Your task to perform on an android device: turn vacation reply on in the gmail app Image 0: 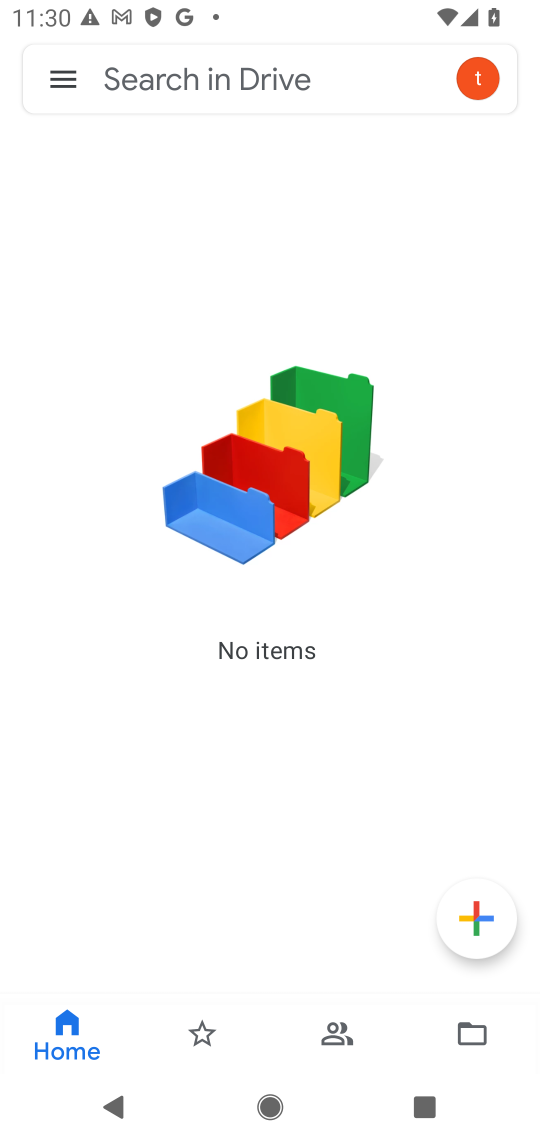
Step 0: press home button
Your task to perform on an android device: turn vacation reply on in the gmail app Image 1: 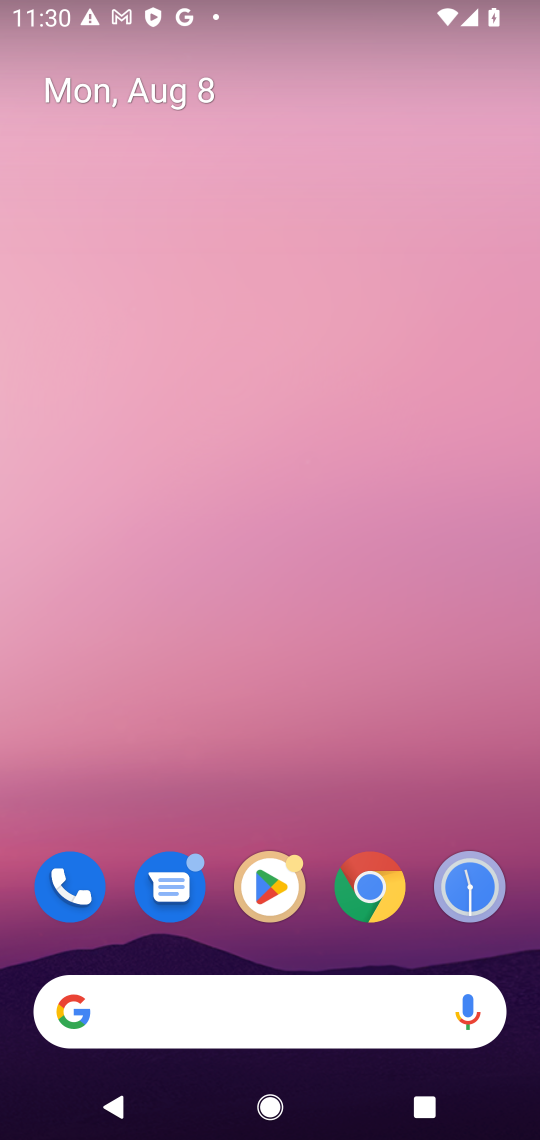
Step 1: drag from (334, 802) to (266, 17)
Your task to perform on an android device: turn vacation reply on in the gmail app Image 2: 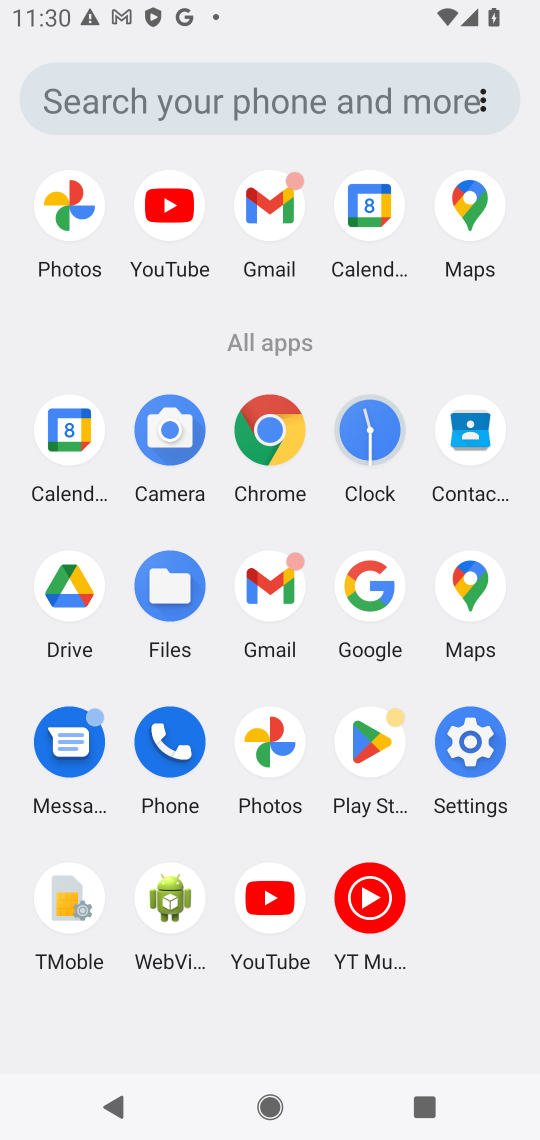
Step 2: click (271, 192)
Your task to perform on an android device: turn vacation reply on in the gmail app Image 3: 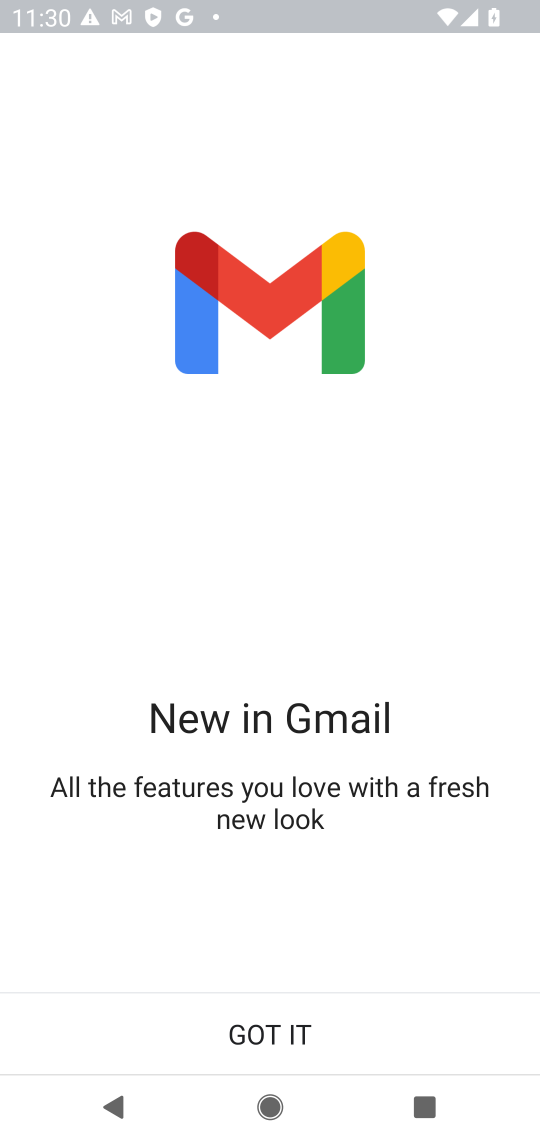
Step 3: click (290, 1026)
Your task to perform on an android device: turn vacation reply on in the gmail app Image 4: 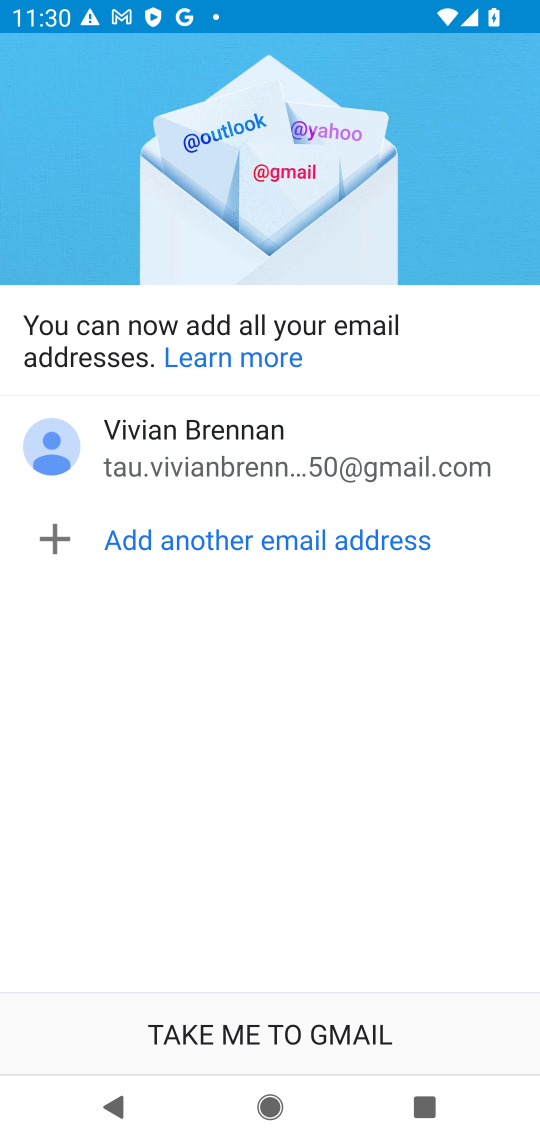
Step 4: click (290, 1026)
Your task to perform on an android device: turn vacation reply on in the gmail app Image 5: 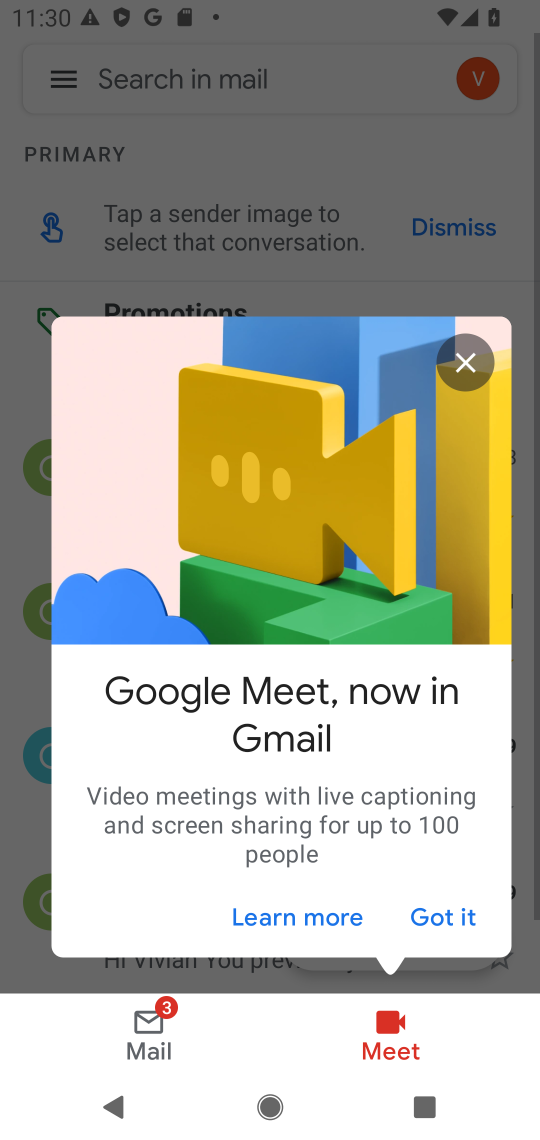
Step 5: click (429, 921)
Your task to perform on an android device: turn vacation reply on in the gmail app Image 6: 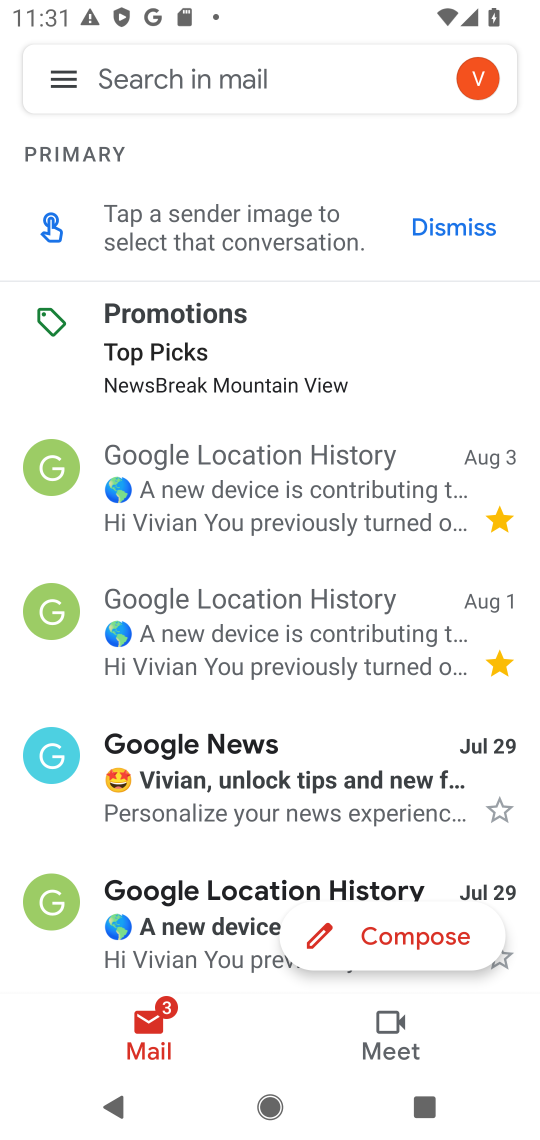
Step 6: click (58, 85)
Your task to perform on an android device: turn vacation reply on in the gmail app Image 7: 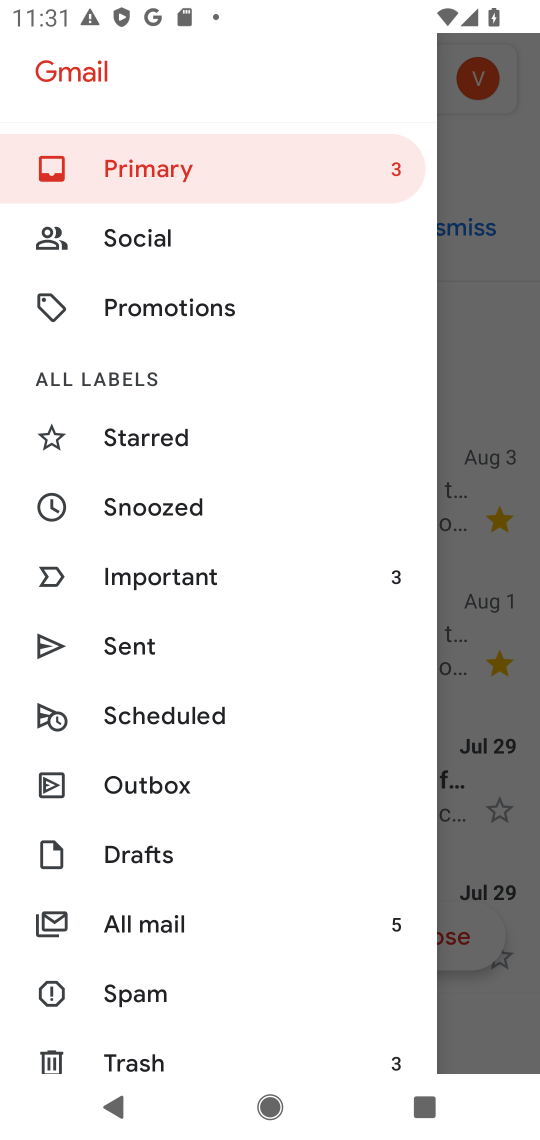
Step 7: drag from (263, 936) to (240, 550)
Your task to perform on an android device: turn vacation reply on in the gmail app Image 8: 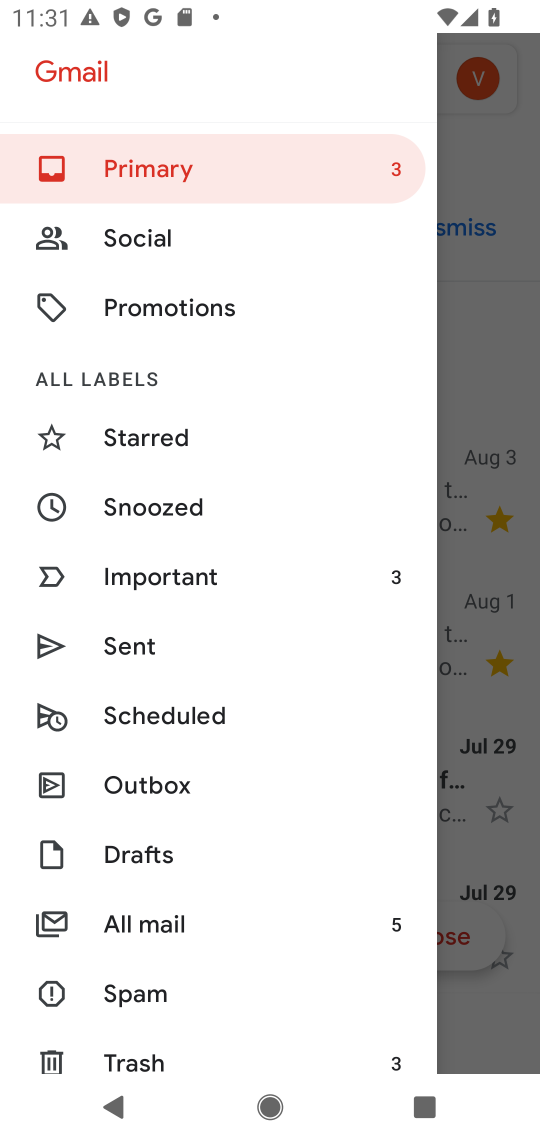
Step 8: drag from (254, 996) to (238, 492)
Your task to perform on an android device: turn vacation reply on in the gmail app Image 9: 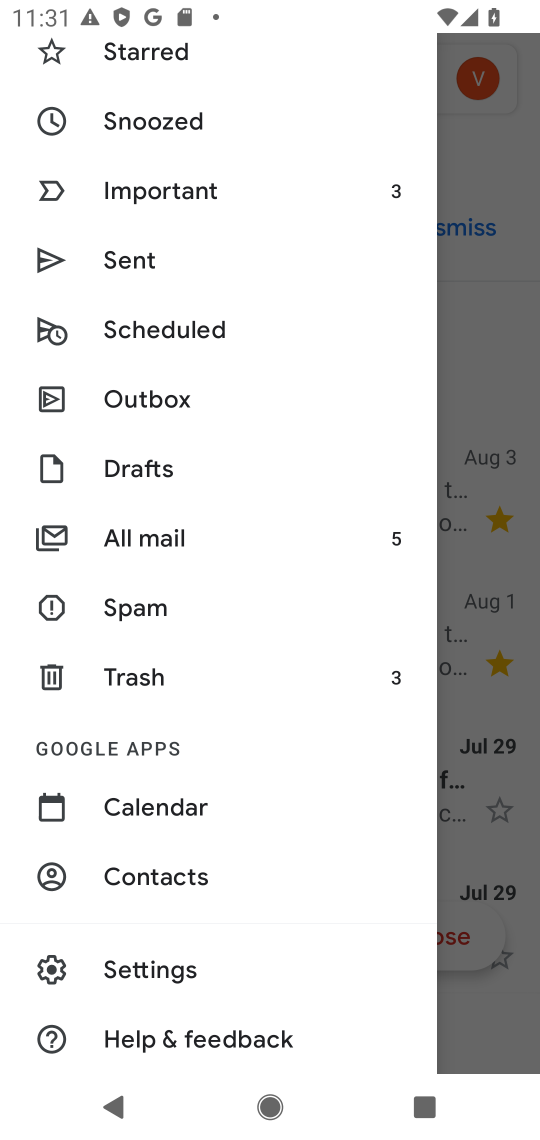
Step 9: click (181, 970)
Your task to perform on an android device: turn vacation reply on in the gmail app Image 10: 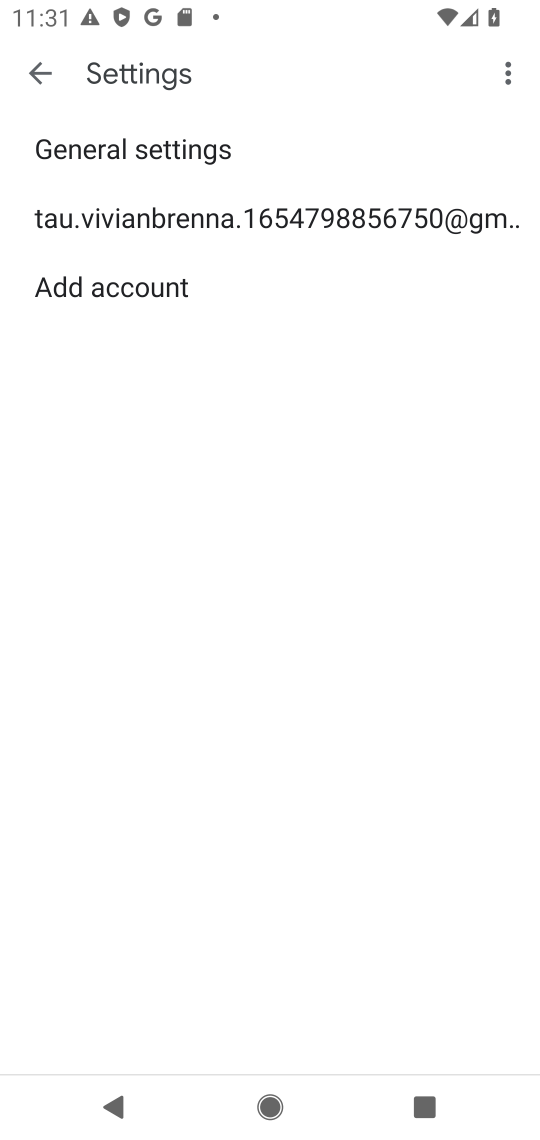
Step 10: click (168, 228)
Your task to perform on an android device: turn vacation reply on in the gmail app Image 11: 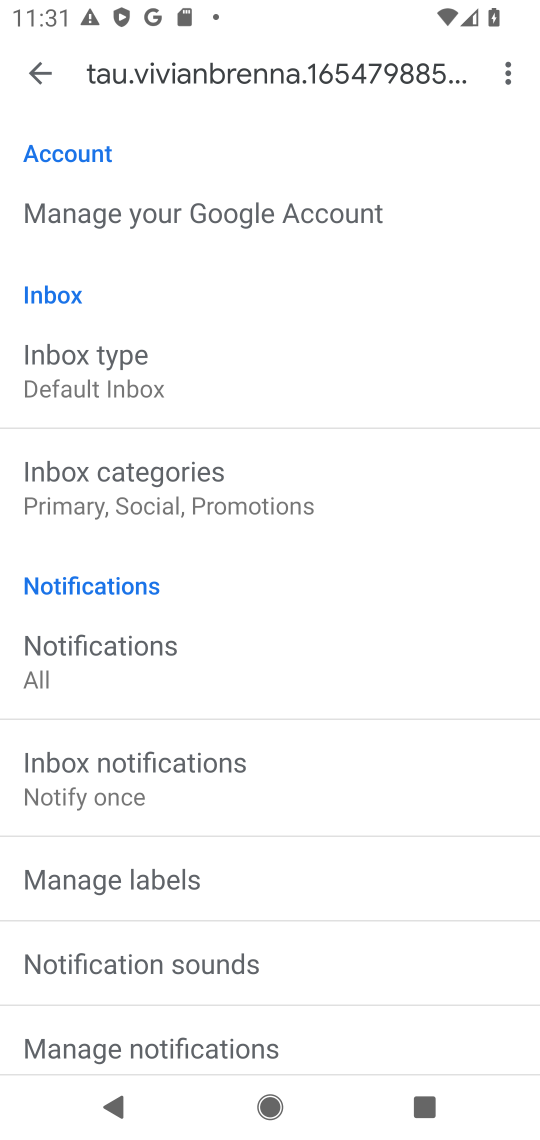
Step 11: drag from (243, 925) to (250, 307)
Your task to perform on an android device: turn vacation reply on in the gmail app Image 12: 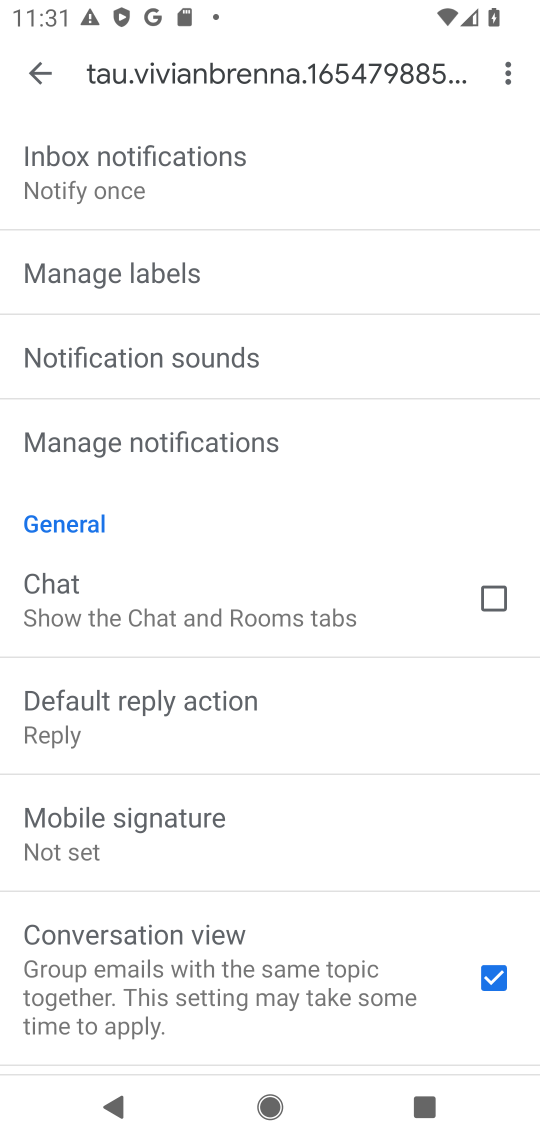
Step 12: drag from (306, 855) to (245, 260)
Your task to perform on an android device: turn vacation reply on in the gmail app Image 13: 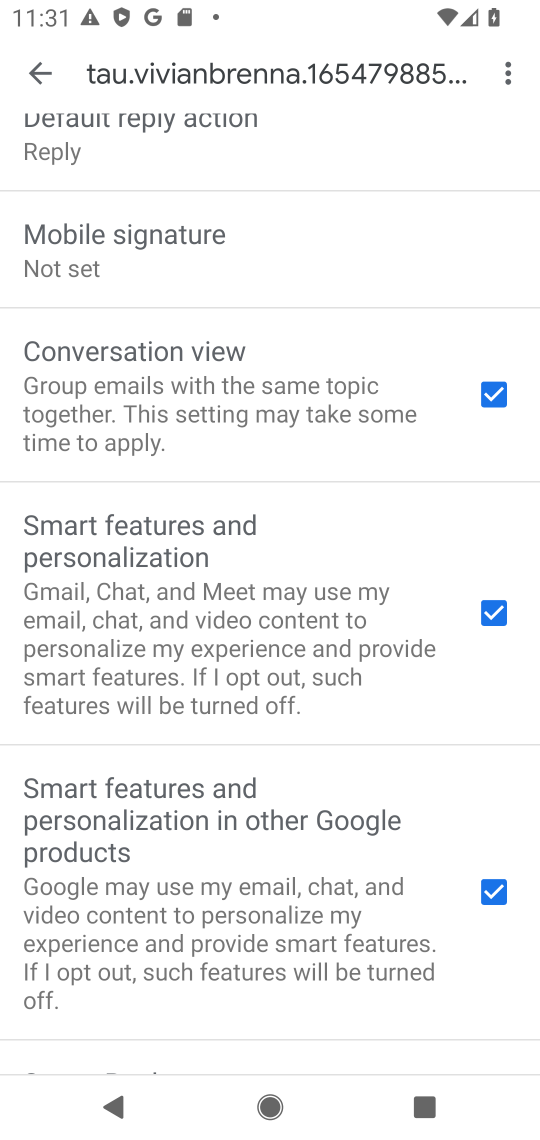
Step 13: drag from (276, 989) to (175, 353)
Your task to perform on an android device: turn vacation reply on in the gmail app Image 14: 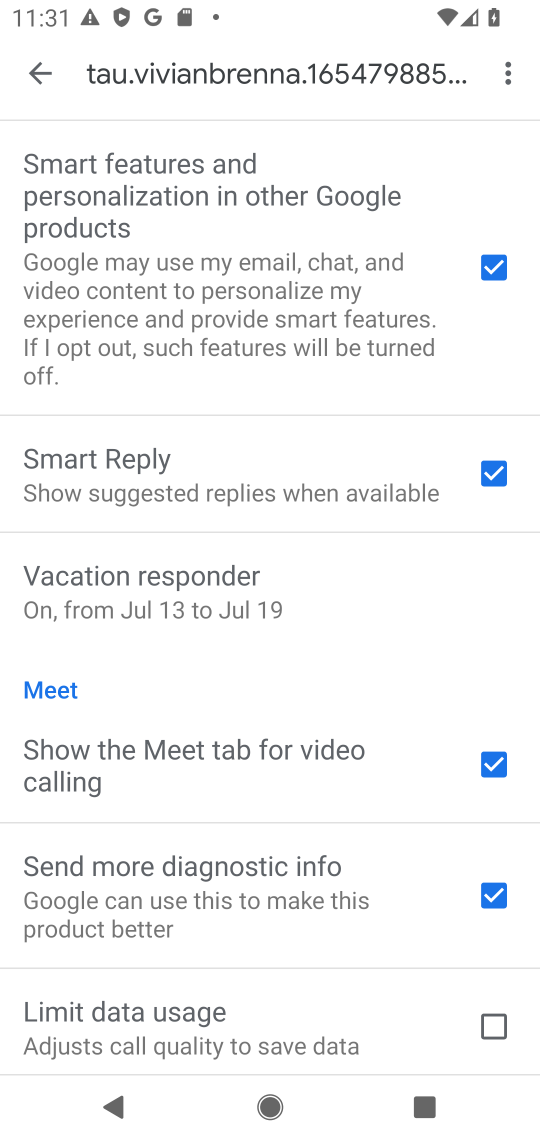
Step 14: drag from (306, 803) to (266, 421)
Your task to perform on an android device: turn vacation reply on in the gmail app Image 15: 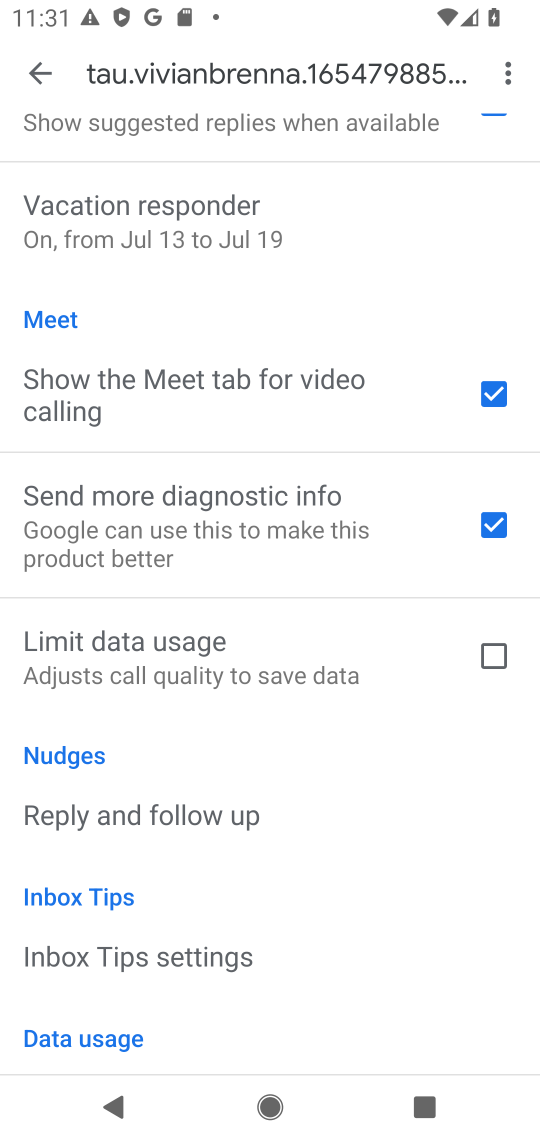
Step 15: click (132, 199)
Your task to perform on an android device: turn vacation reply on in the gmail app Image 16: 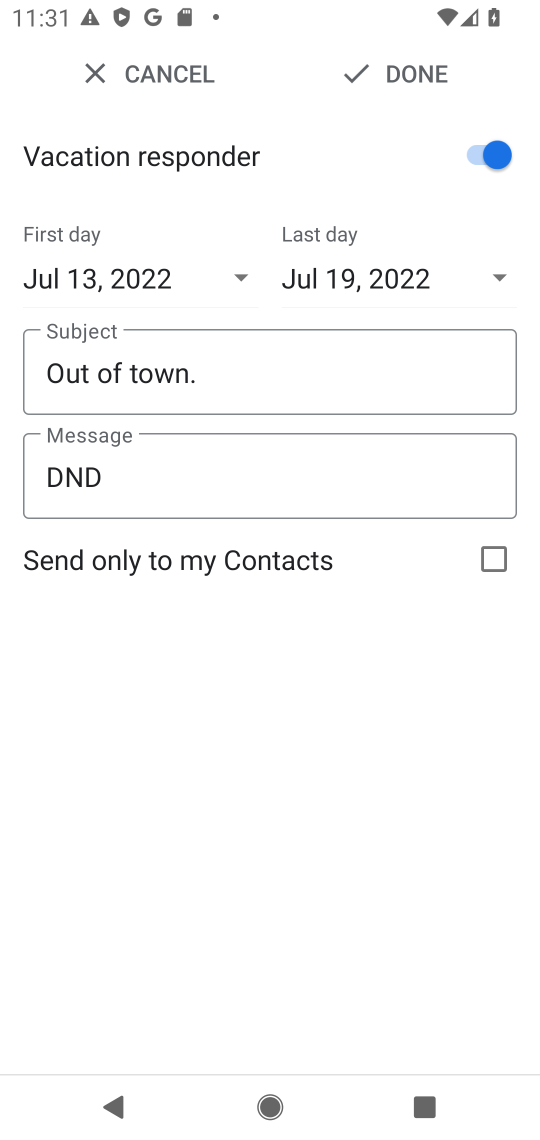
Step 16: task complete